Your task to perform on an android device: Go to wifi settings Image 0: 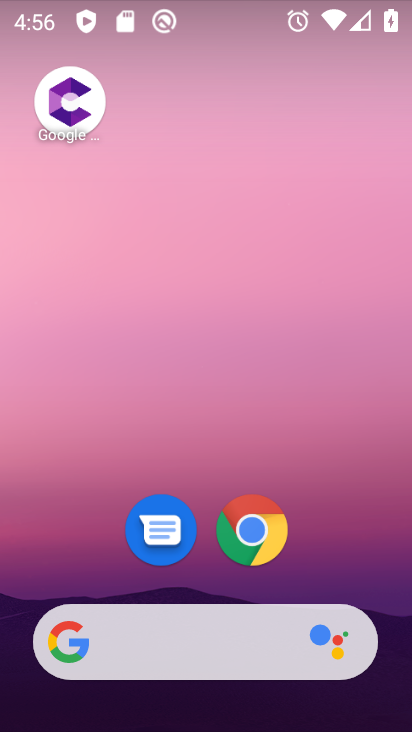
Step 0: drag from (220, 10) to (195, 360)
Your task to perform on an android device: Go to wifi settings Image 1: 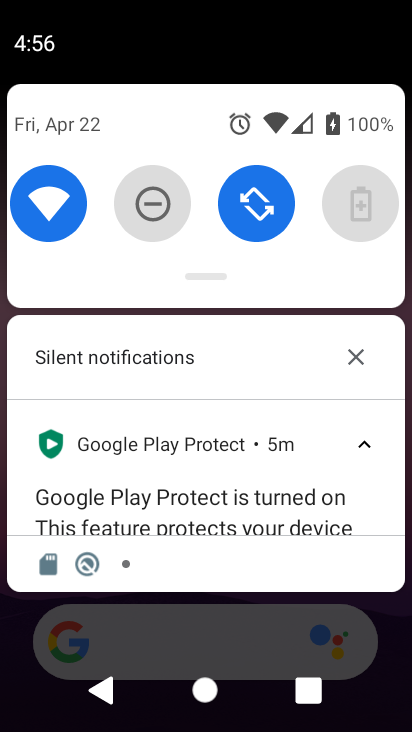
Step 1: click (44, 212)
Your task to perform on an android device: Go to wifi settings Image 2: 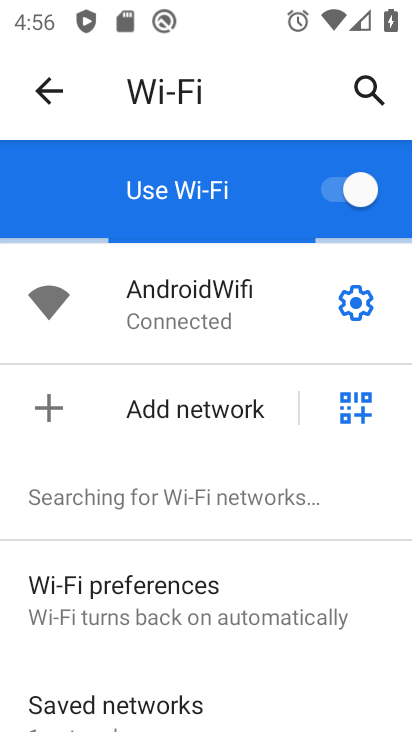
Step 2: task complete